Your task to perform on an android device: What is the news today? Image 0: 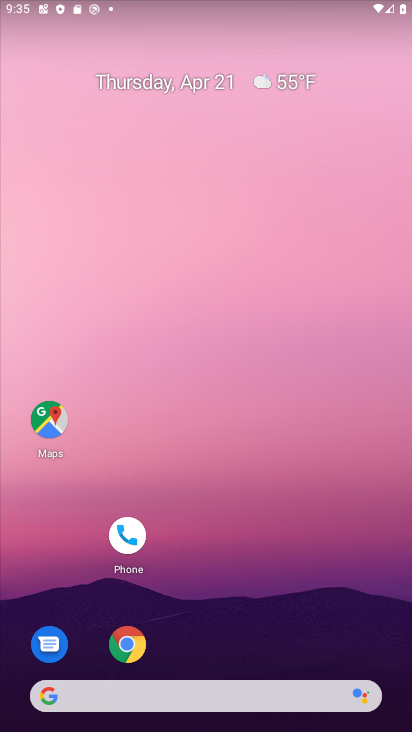
Step 0: drag from (228, 619) to (201, 142)
Your task to perform on an android device: What is the news today? Image 1: 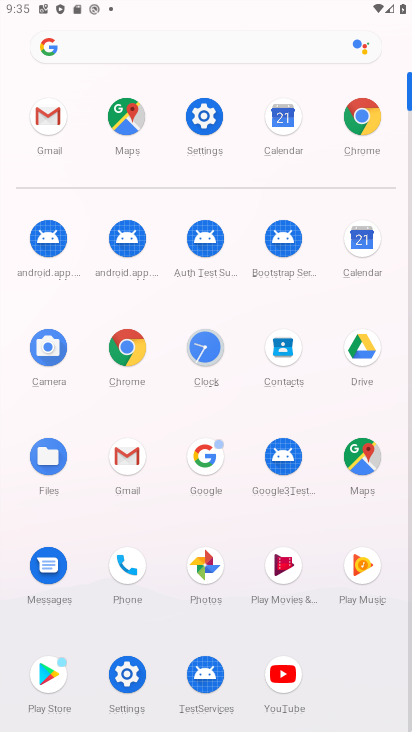
Step 1: click (129, 354)
Your task to perform on an android device: What is the news today? Image 2: 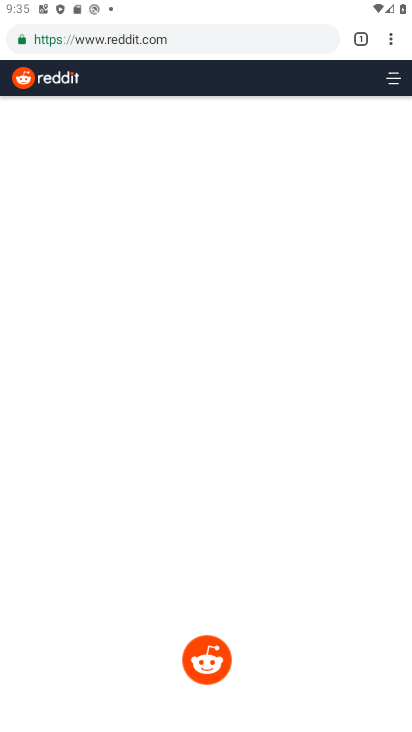
Step 2: click (222, 41)
Your task to perform on an android device: What is the news today? Image 3: 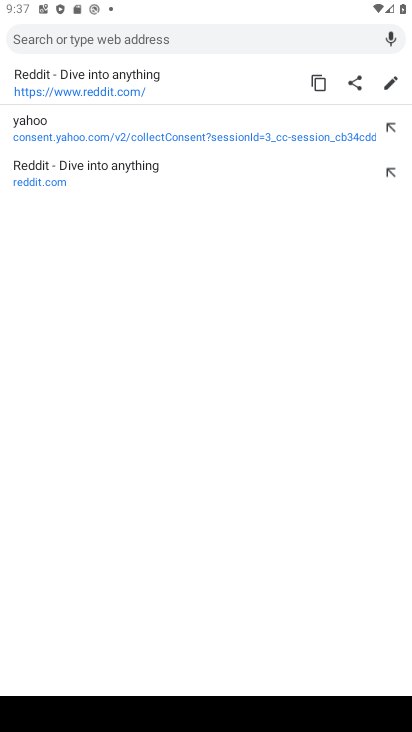
Step 3: type "news"
Your task to perform on an android device: What is the news today? Image 4: 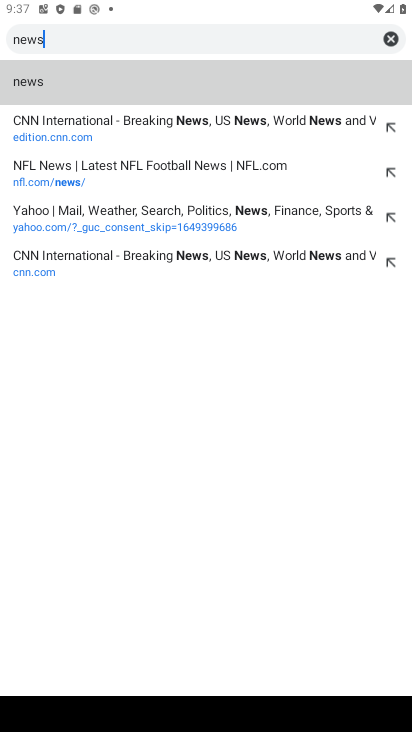
Step 4: click (24, 87)
Your task to perform on an android device: What is the news today? Image 5: 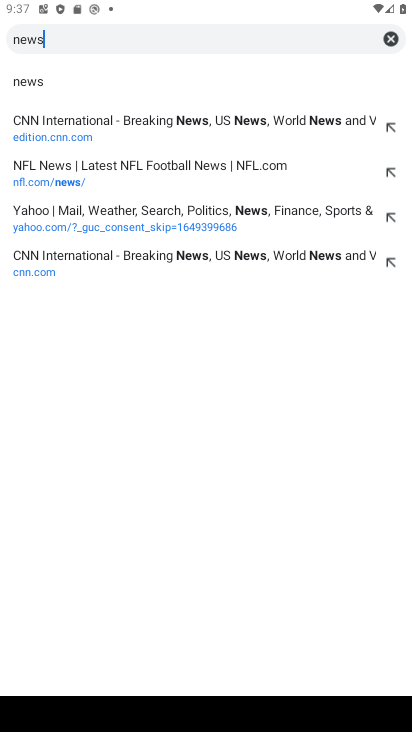
Step 5: click (30, 82)
Your task to perform on an android device: What is the news today? Image 6: 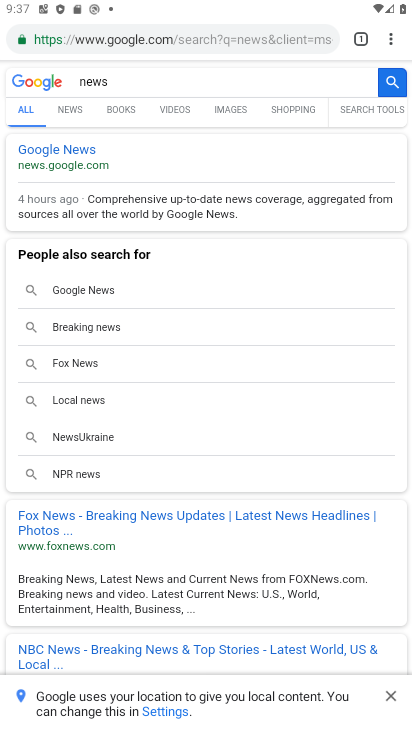
Step 6: click (77, 110)
Your task to perform on an android device: What is the news today? Image 7: 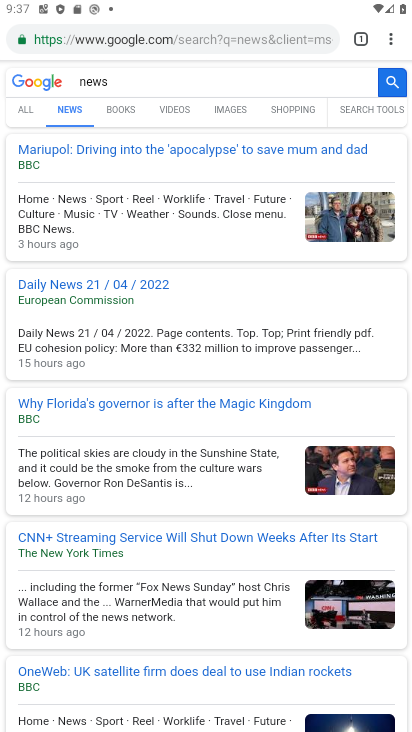
Step 7: task complete